Your task to perform on an android device: Go to location settings Image 0: 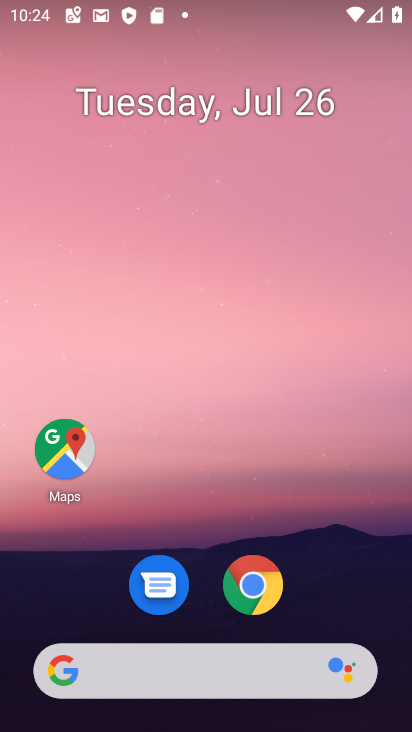
Step 0: drag from (215, 552) to (251, 118)
Your task to perform on an android device: Go to location settings Image 1: 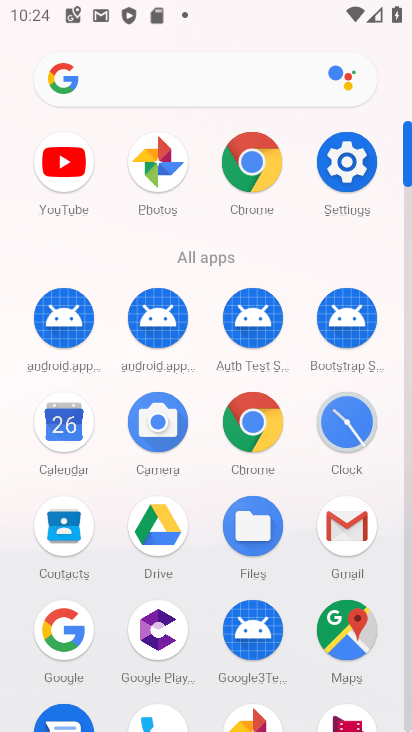
Step 1: click (337, 150)
Your task to perform on an android device: Go to location settings Image 2: 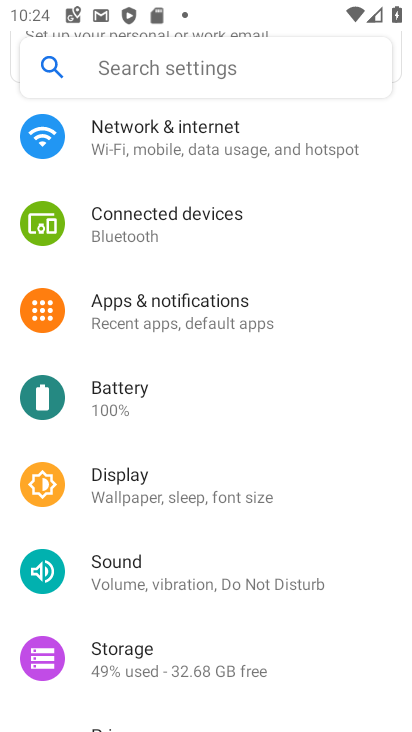
Step 2: drag from (283, 562) to (266, 250)
Your task to perform on an android device: Go to location settings Image 3: 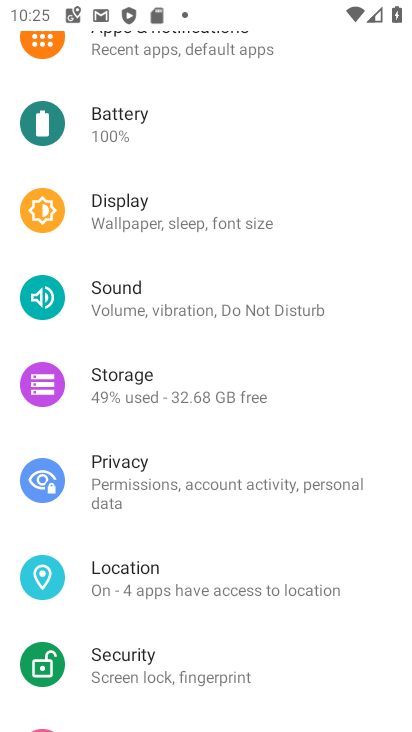
Step 3: click (111, 581)
Your task to perform on an android device: Go to location settings Image 4: 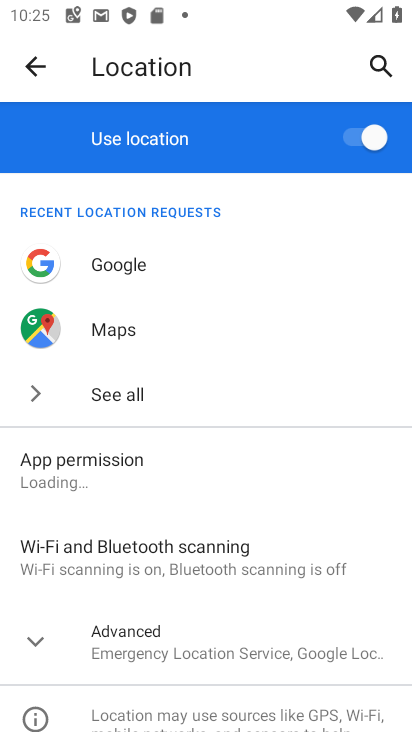
Step 4: task complete